Your task to perform on an android device: read, delete, or share a saved page in the chrome app Image 0: 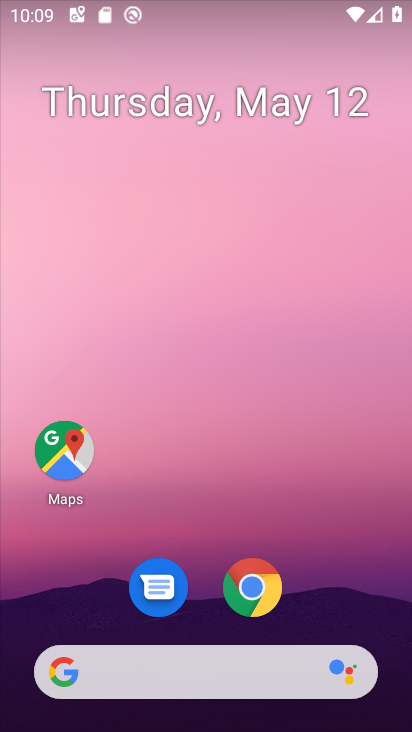
Step 0: drag from (366, 601) to (183, 40)
Your task to perform on an android device: read, delete, or share a saved page in the chrome app Image 1: 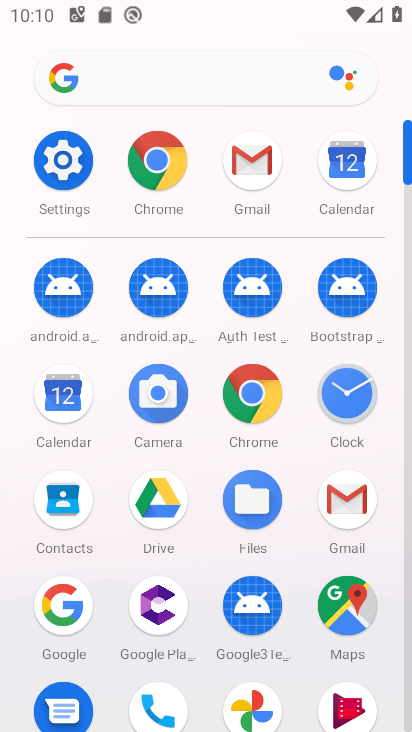
Step 1: click (260, 381)
Your task to perform on an android device: read, delete, or share a saved page in the chrome app Image 2: 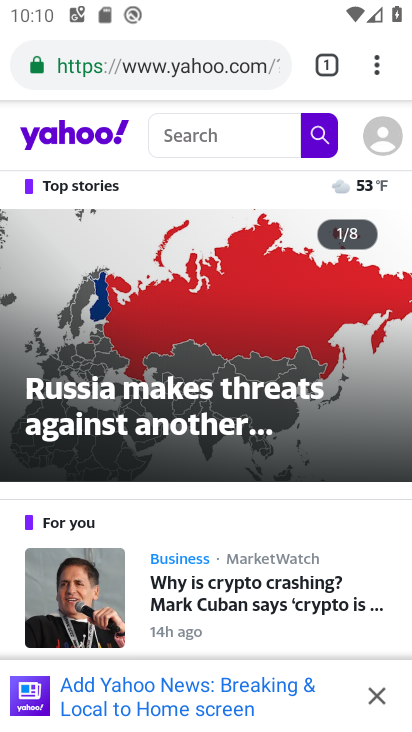
Step 2: task complete